Your task to perform on an android device: Open sound settings Image 0: 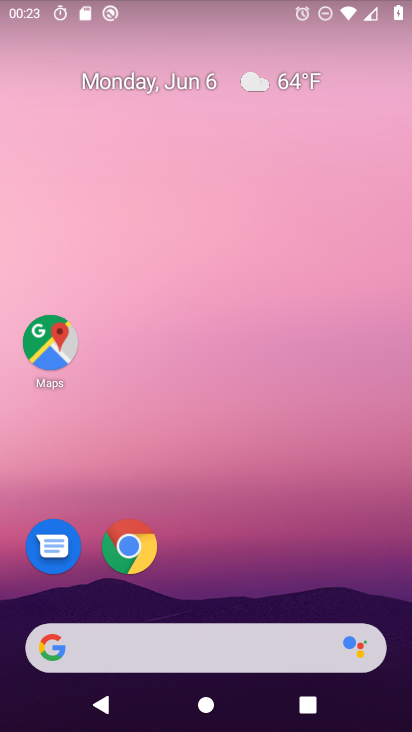
Step 0: click (284, 158)
Your task to perform on an android device: Open sound settings Image 1: 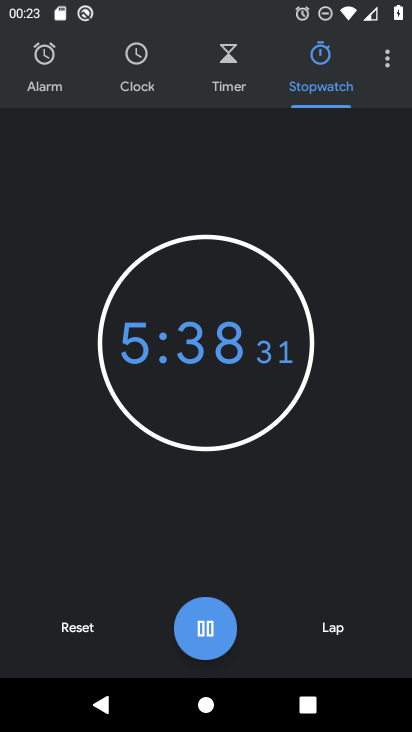
Step 1: press home button
Your task to perform on an android device: Open sound settings Image 2: 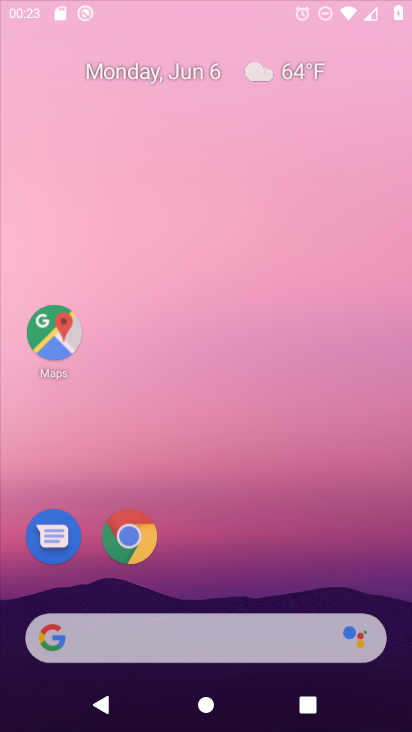
Step 2: drag from (254, 567) to (309, 140)
Your task to perform on an android device: Open sound settings Image 3: 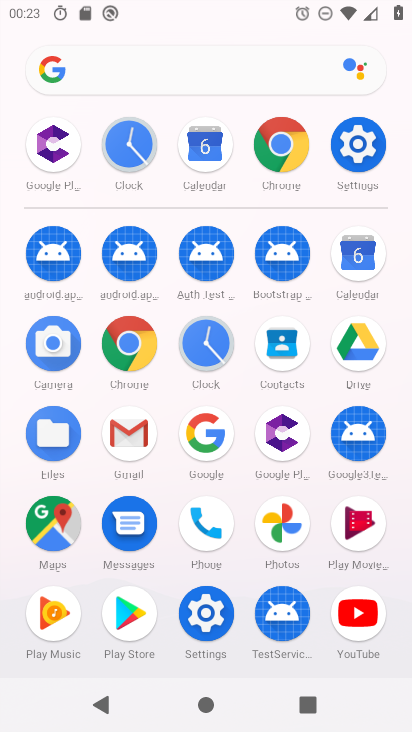
Step 3: click (368, 135)
Your task to perform on an android device: Open sound settings Image 4: 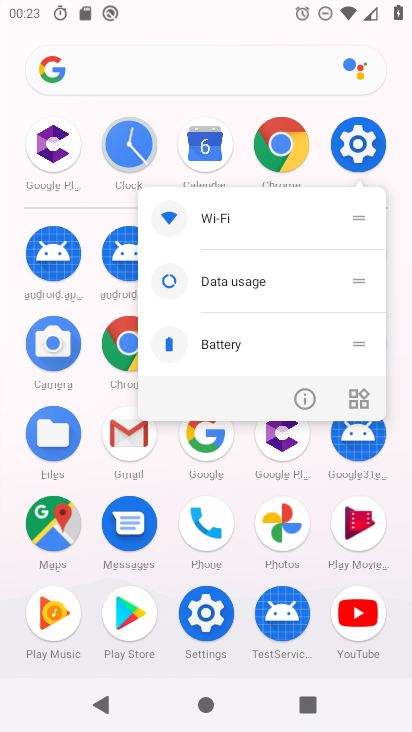
Step 4: click (294, 403)
Your task to perform on an android device: Open sound settings Image 5: 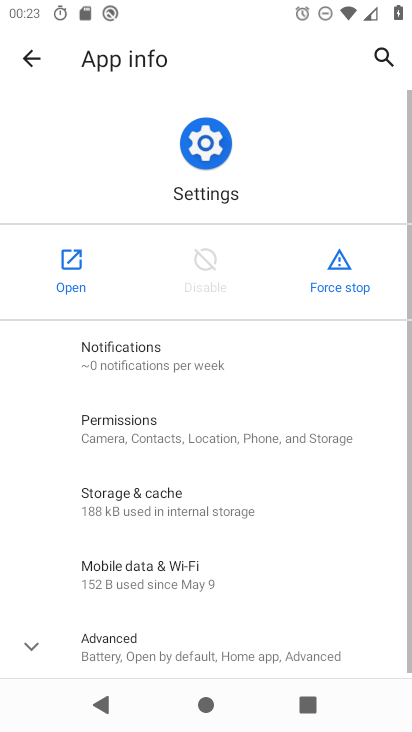
Step 5: click (79, 275)
Your task to perform on an android device: Open sound settings Image 6: 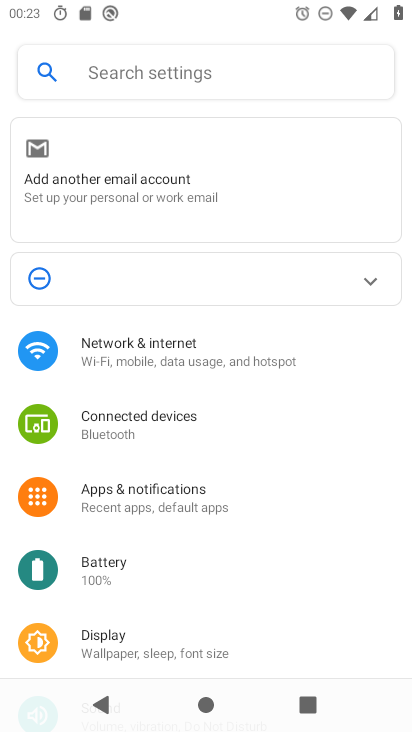
Step 6: drag from (254, 548) to (243, 263)
Your task to perform on an android device: Open sound settings Image 7: 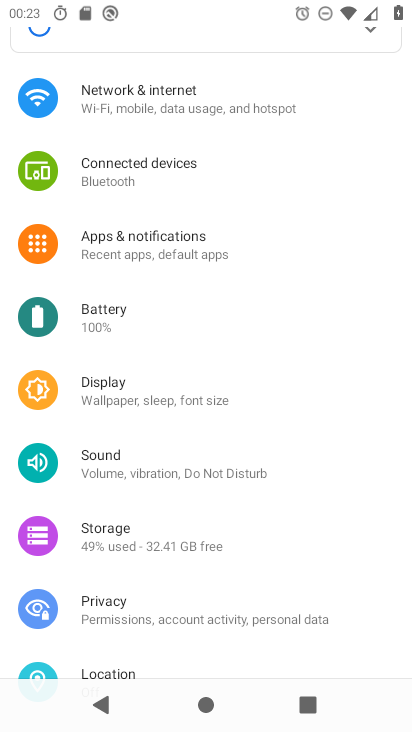
Step 7: click (124, 471)
Your task to perform on an android device: Open sound settings Image 8: 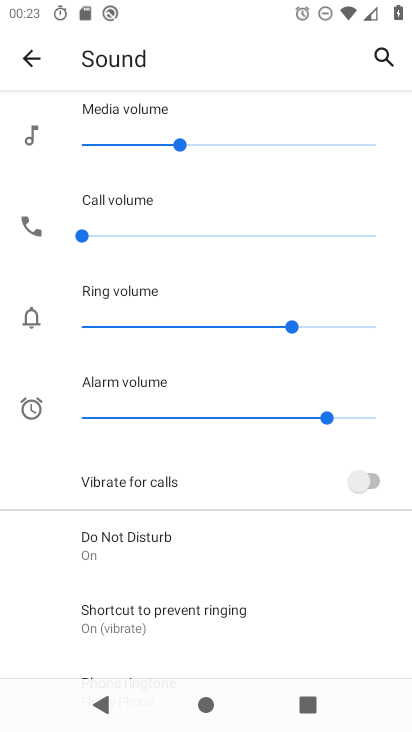
Step 8: task complete